Your task to perform on an android device: open sync settings in chrome Image 0: 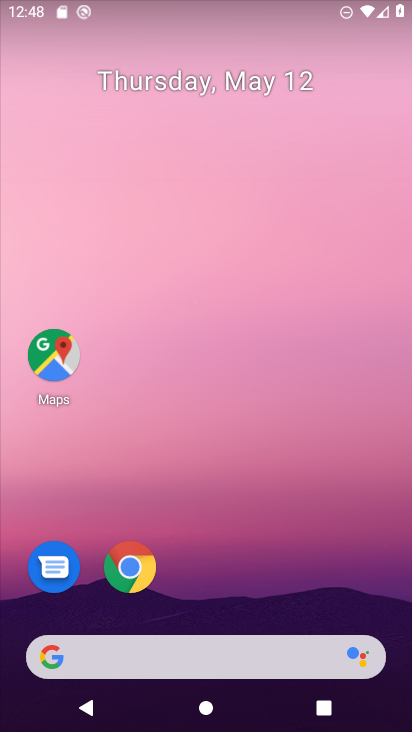
Step 0: drag from (141, 692) to (149, 19)
Your task to perform on an android device: open sync settings in chrome Image 1: 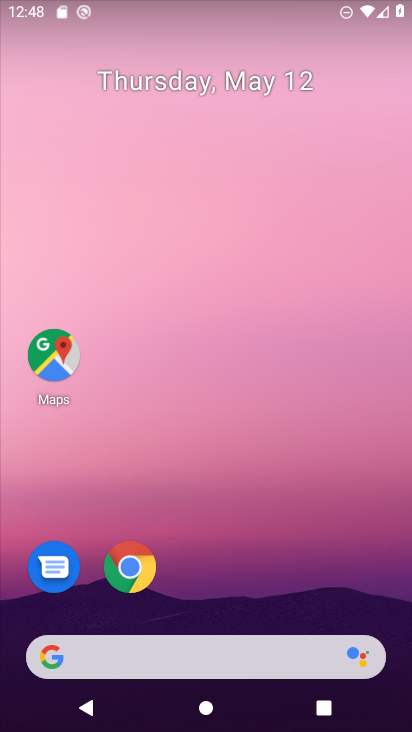
Step 1: click (146, 575)
Your task to perform on an android device: open sync settings in chrome Image 2: 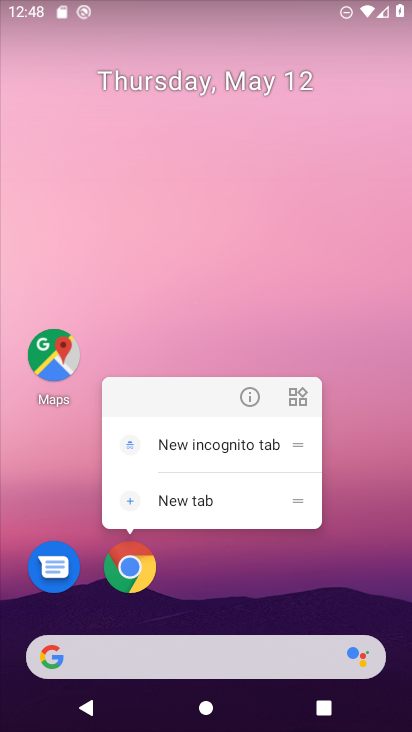
Step 2: click (146, 575)
Your task to perform on an android device: open sync settings in chrome Image 3: 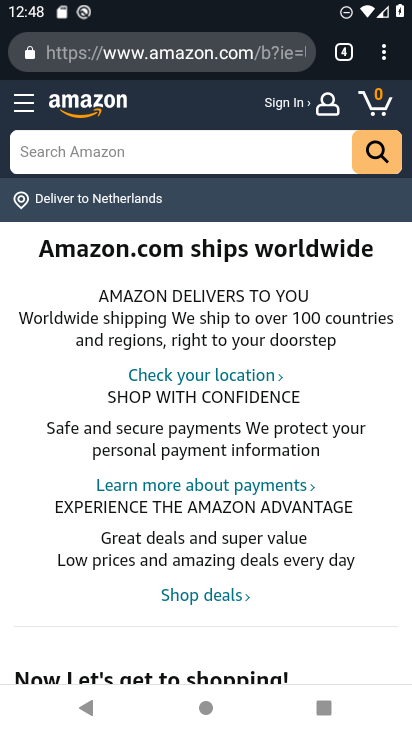
Step 3: click (387, 48)
Your task to perform on an android device: open sync settings in chrome Image 4: 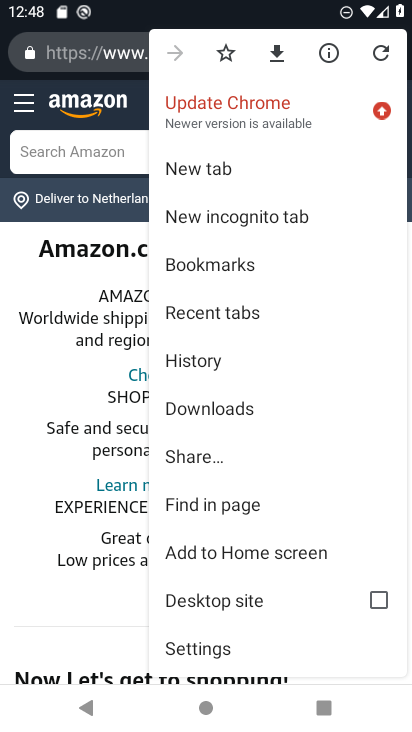
Step 4: click (226, 653)
Your task to perform on an android device: open sync settings in chrome Image 5: 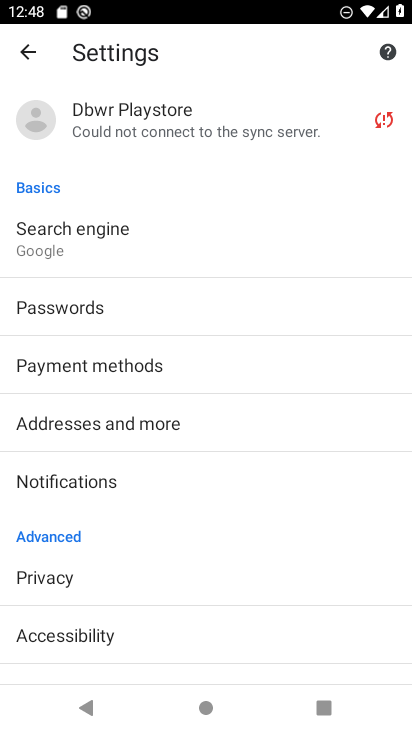
Step 5: click (279, 116)
Your task to perform on an android device: open sync settings in chrome Image 6: 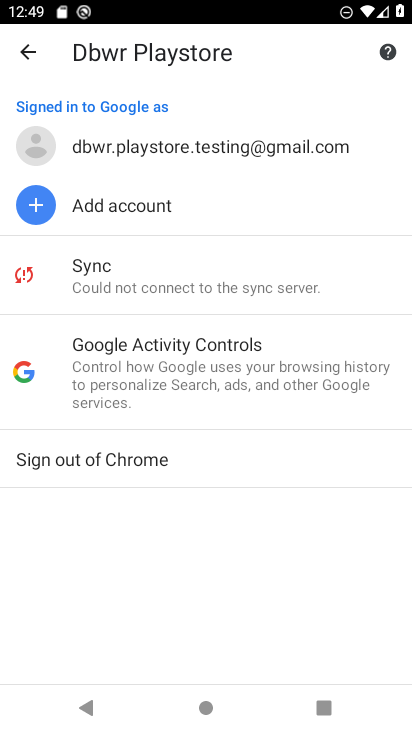
Step 6: task complete